Your task to perform on an android device: Show me recent news Image 0: 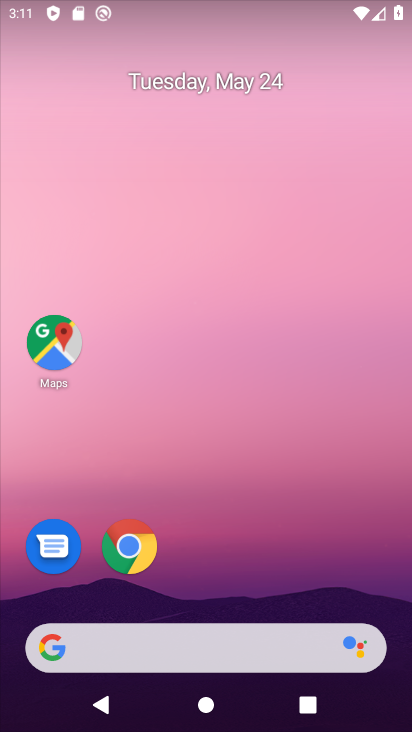
Step 0: drag from (268, 602) to (262, 162)
Your task to perform on an android device: Show me recent news Image 1: 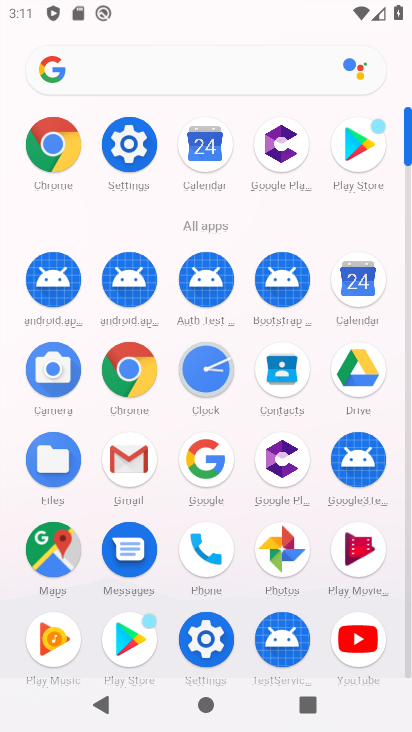
Step 1: press back button
Your task to perform on an android device: Show me recent news Image 2: 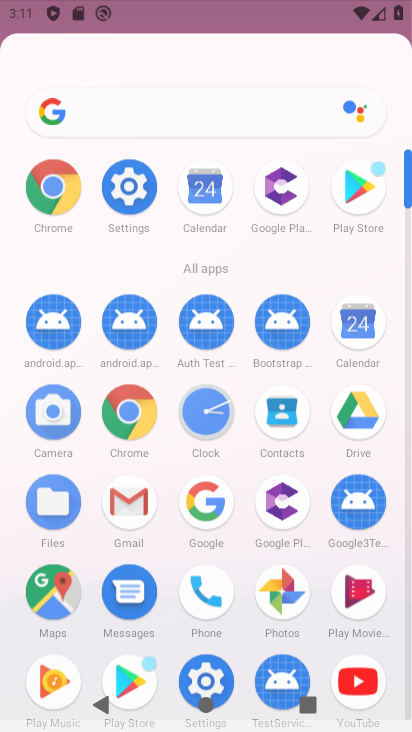
Step 2: press home button
Your task to perform on an android device: Show me recent news Image 3: 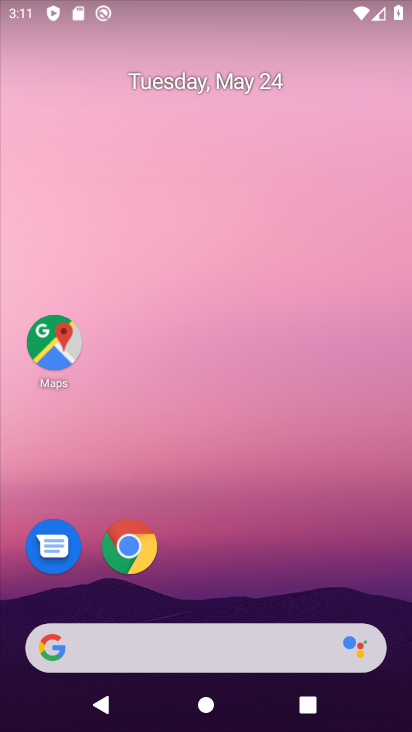
Step 3: press home button
Your task to perform on an android device: Show me recent news Image 4: 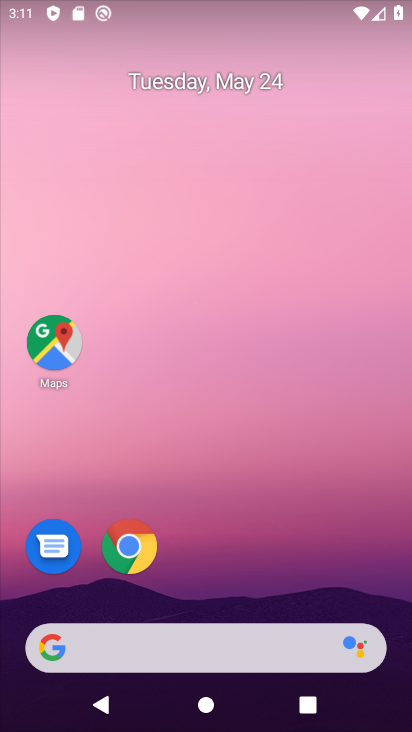
Step 4: press home button
Your task to perform on an android device: Show me recent news Image 5: 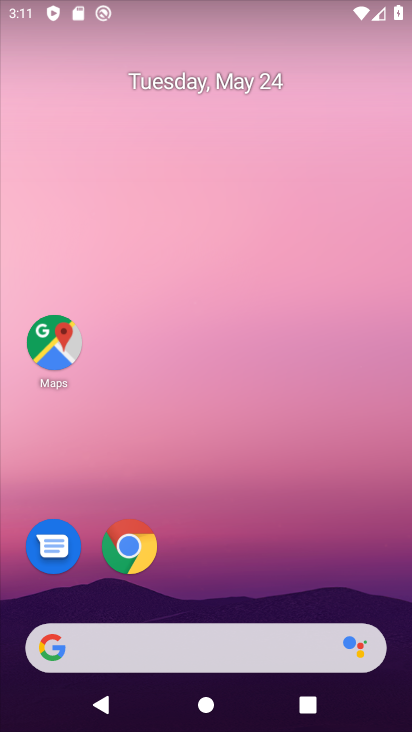
Step 5: drag from (7, 284) to (323, 521)
Your task to perform on an android device: Show me recent news Image 6: 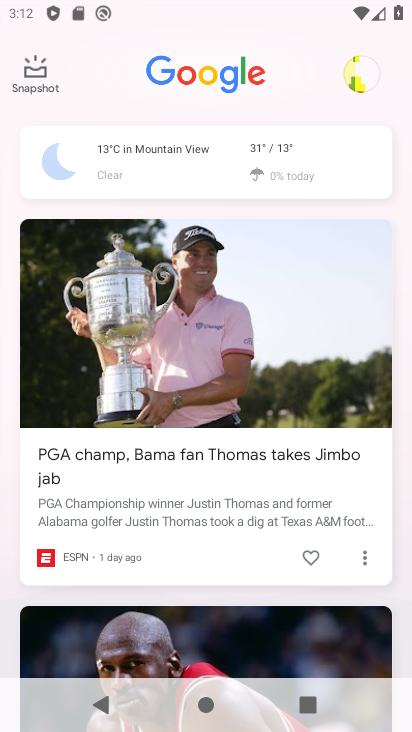
Step 6: drag from (243, 611) to (201, 238)
Your task to perform on an android device: Show me recent news Image 7: 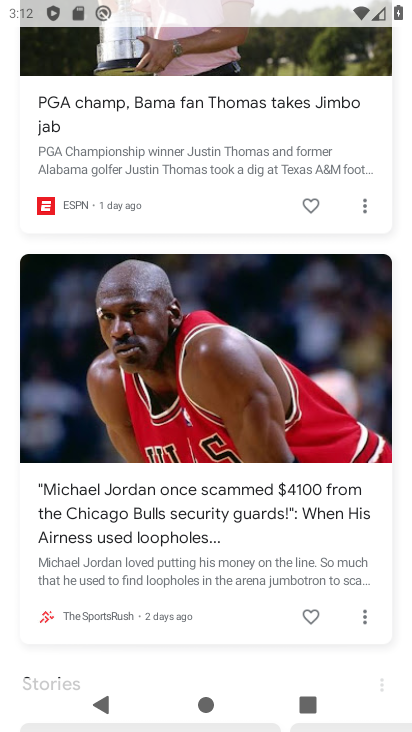
Step 7: drag from (222, 514) to (249, 330)
Your task to perform on an android device: Show me recent news Image 8: 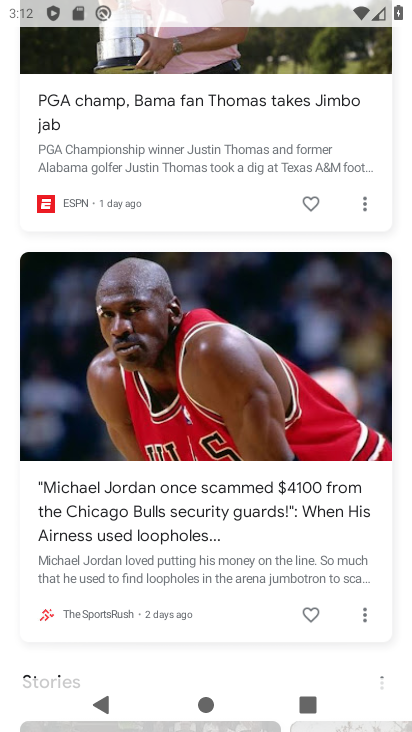
Step 8: click (235, 325)
Your task to perform on an android device: Show me recent news Image 9: 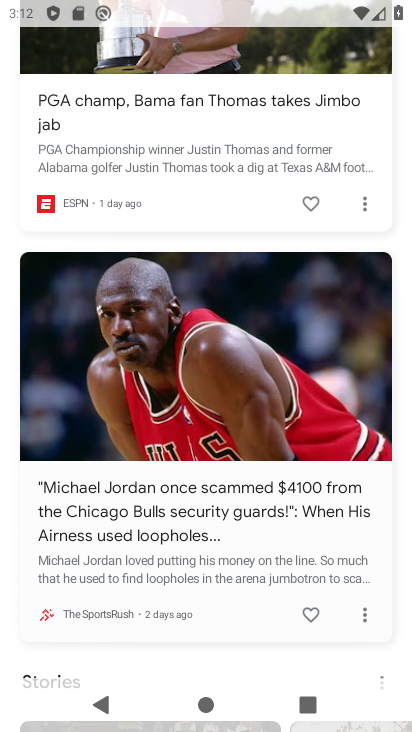
Step 9: task complete